Your task to perform on an android device: open app "YouTube Kids" Image 0: 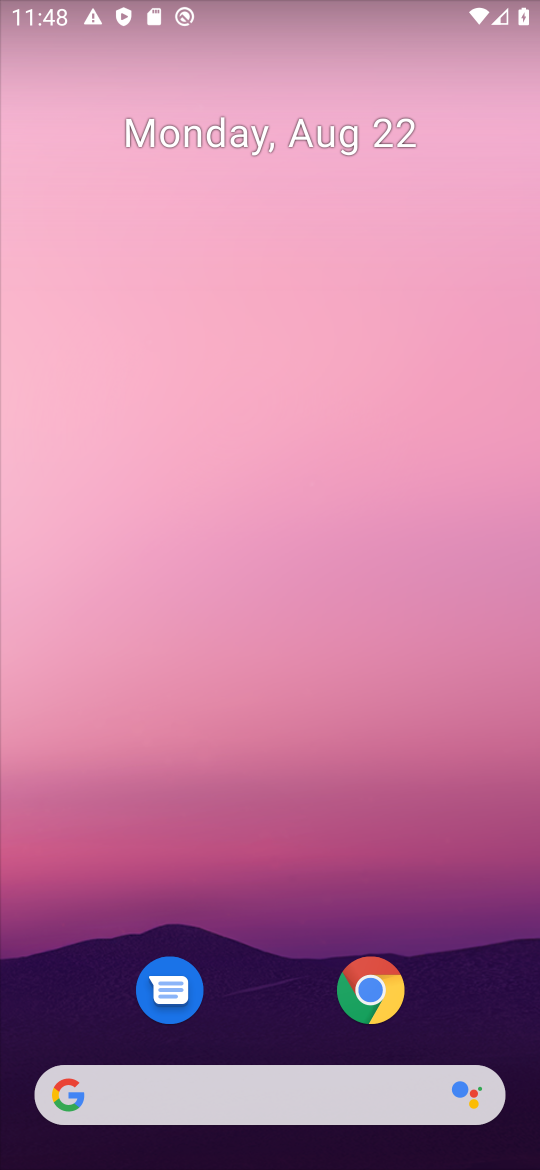
Step 0: drag from (241, 786) to (275, 447)
Your task to perform on an android device: open app "YouTube Kids" Image 1: 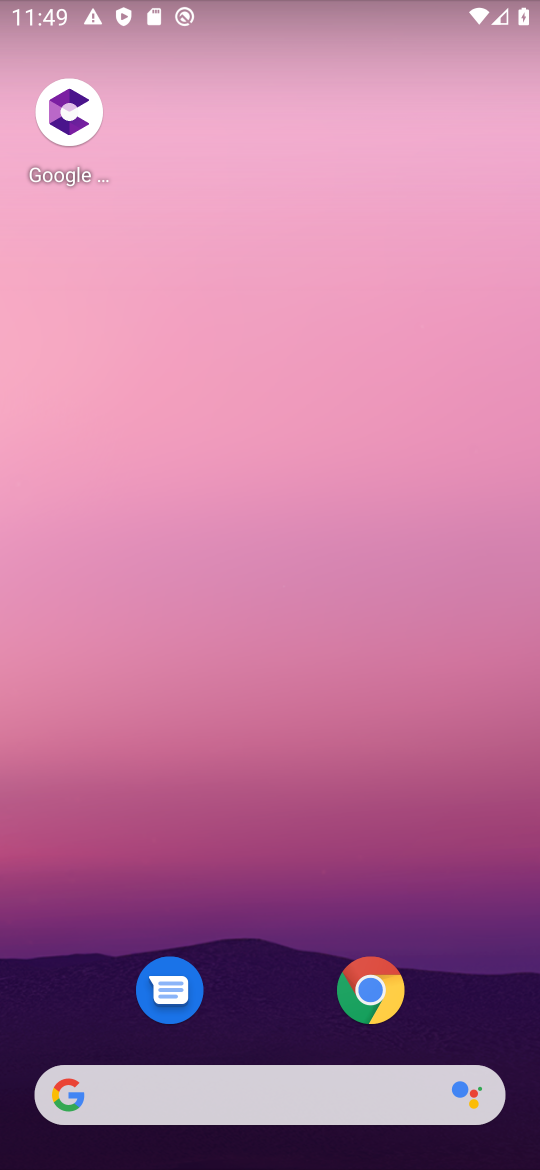
Step 1: drag from (220, 988) to (203, 521)
Your task to perform on an android device: open app "YouTube Kids" Image 2: 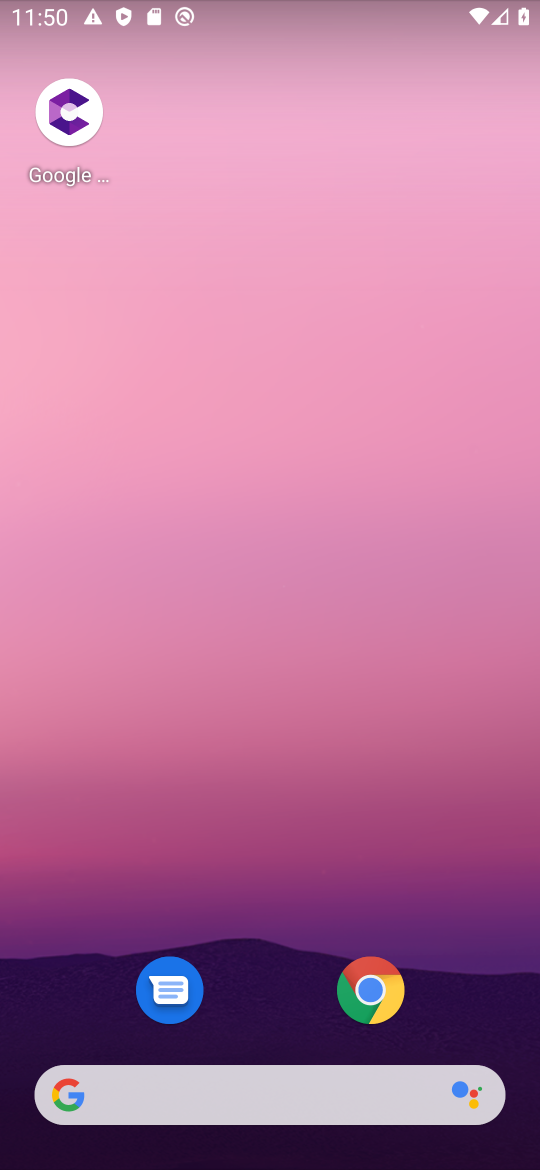
Step 2: drag from (291, 981) to (299, 26)
Your task to perform on an android device: open app "YouTube Kids" Image 3: 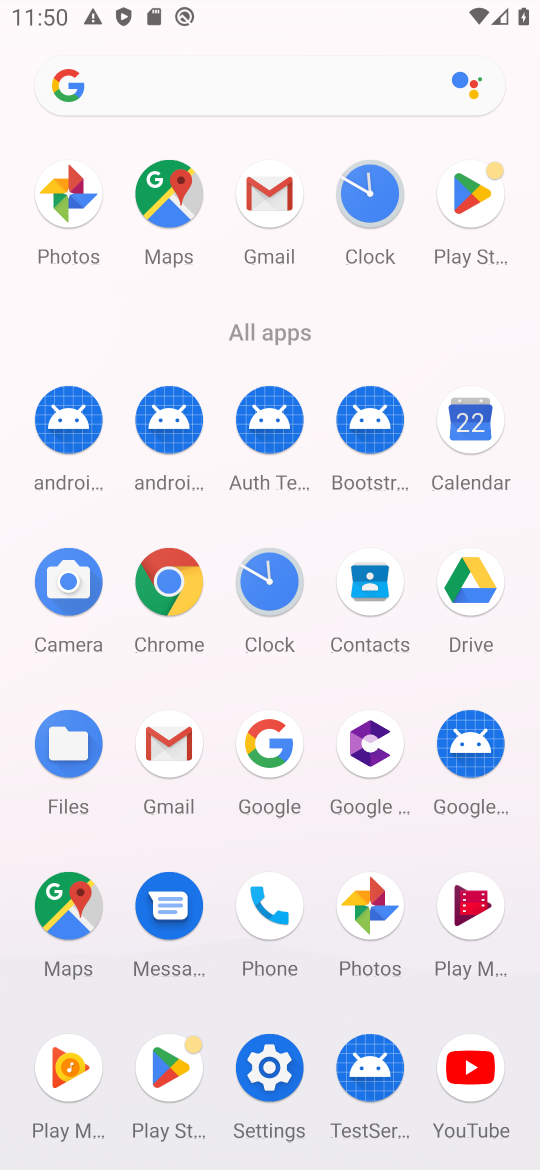
Step 3: click (456, 246)
Your task to perform on an android device: open app "YouTube Kids" Image 4: 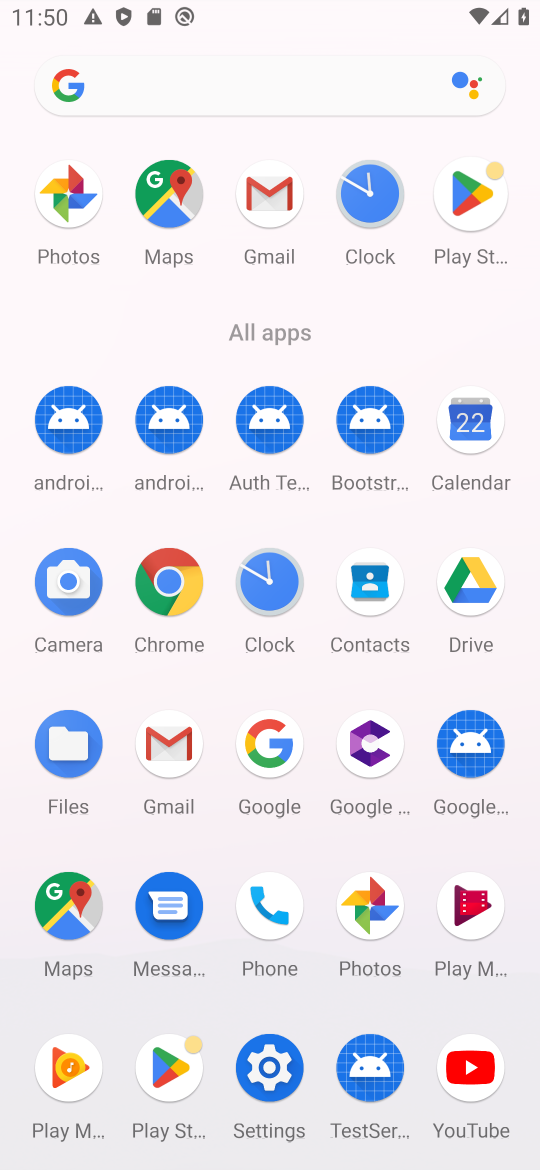
Step 4: click (459, 180)
Your task to perform on an android device: open app "YouTube Kids" Image 5: 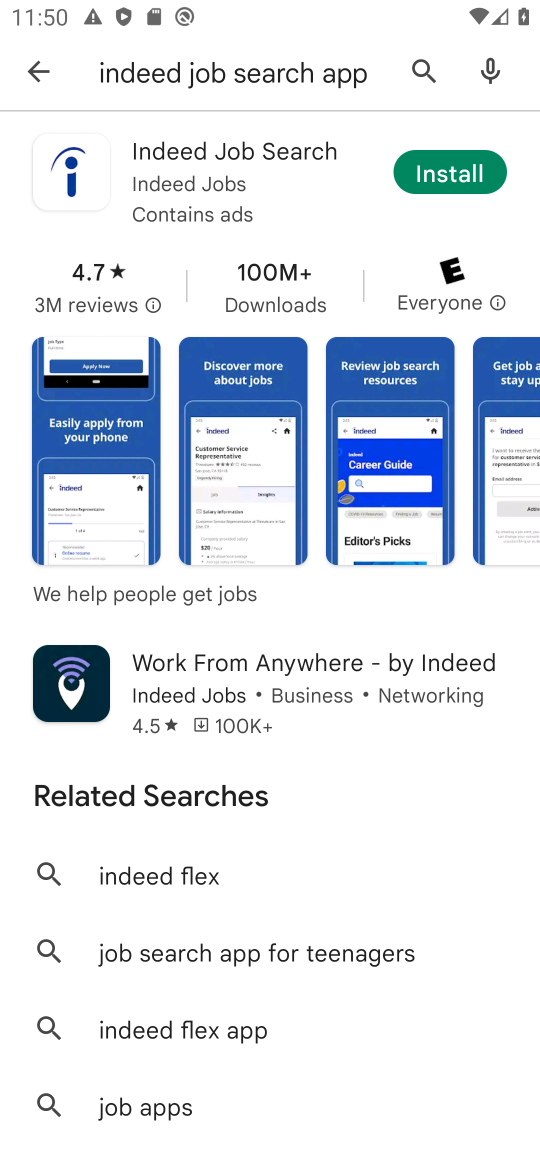
Step 5: click (31, 67)
Your task to perform on an android device: open app "YouTube Kids" Image 6: 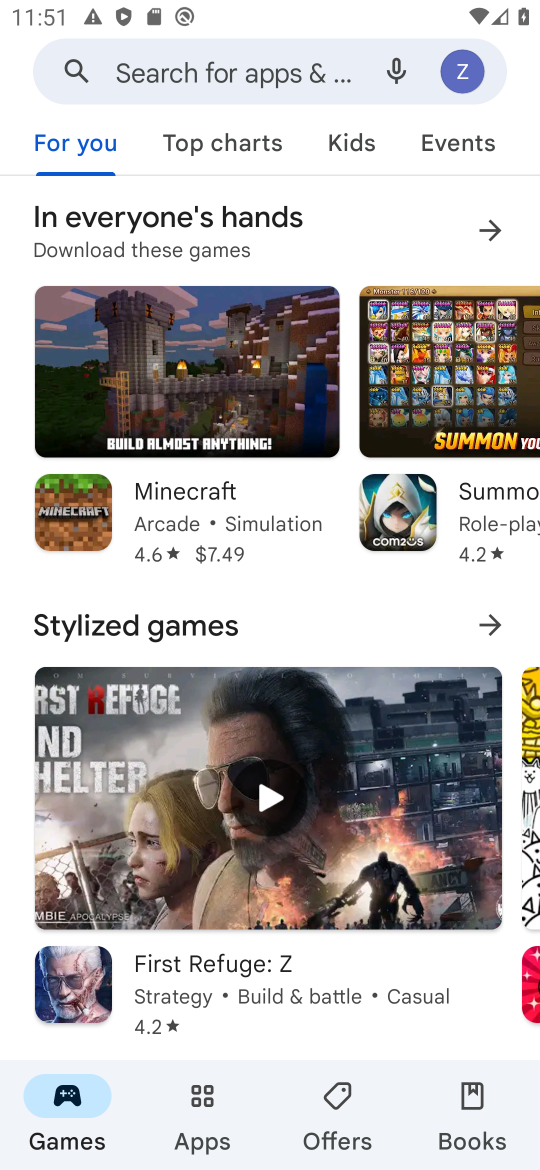
Step 6: click (269, 49)
Your task to perform on an android device: open app "YouTube Kids" Image 7: 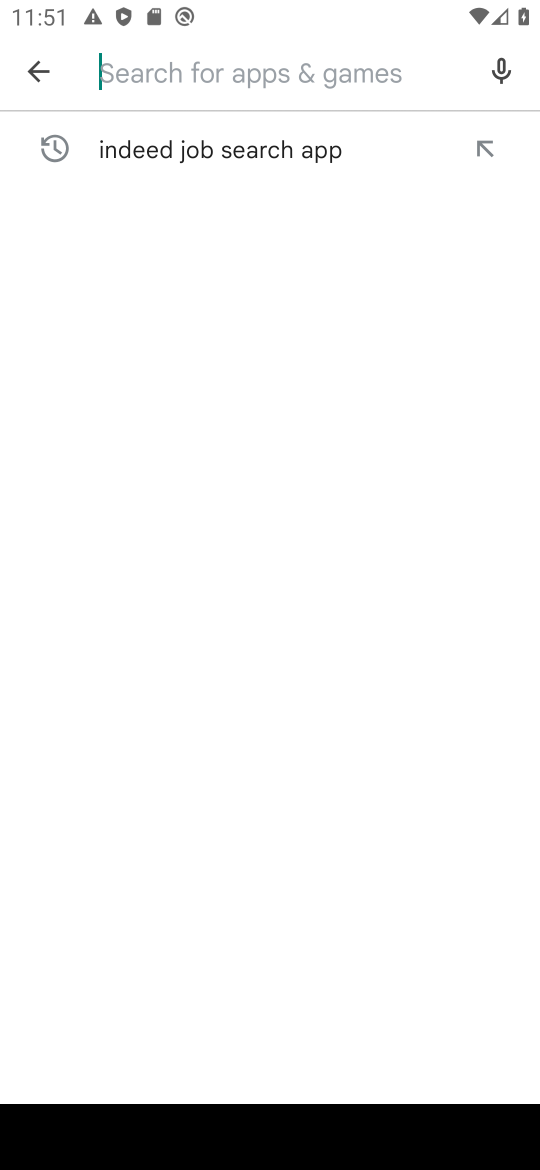
Step 7: type "YouTube Kids "
Your task to perform on an android device: open app "YouTube Kids" Image 8: 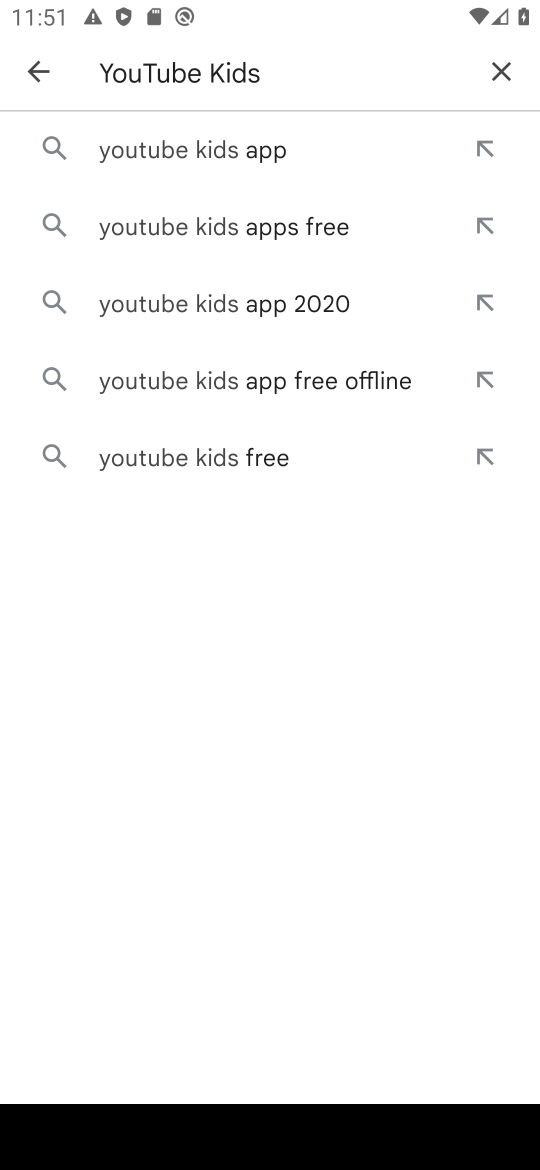
Step 8: click (196, 149)
Your task to perform on an android device: open app "YouTube Kids" Image 9: 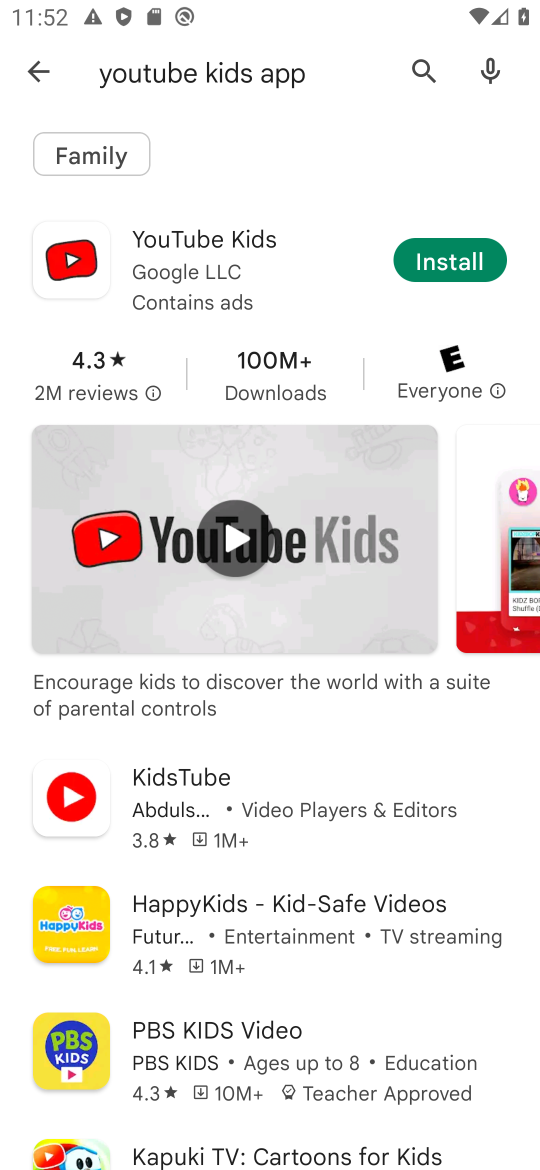
Step 9: click (447, 246)
Your task to perform on an android device: open app "YouTube Kids" Image 10: 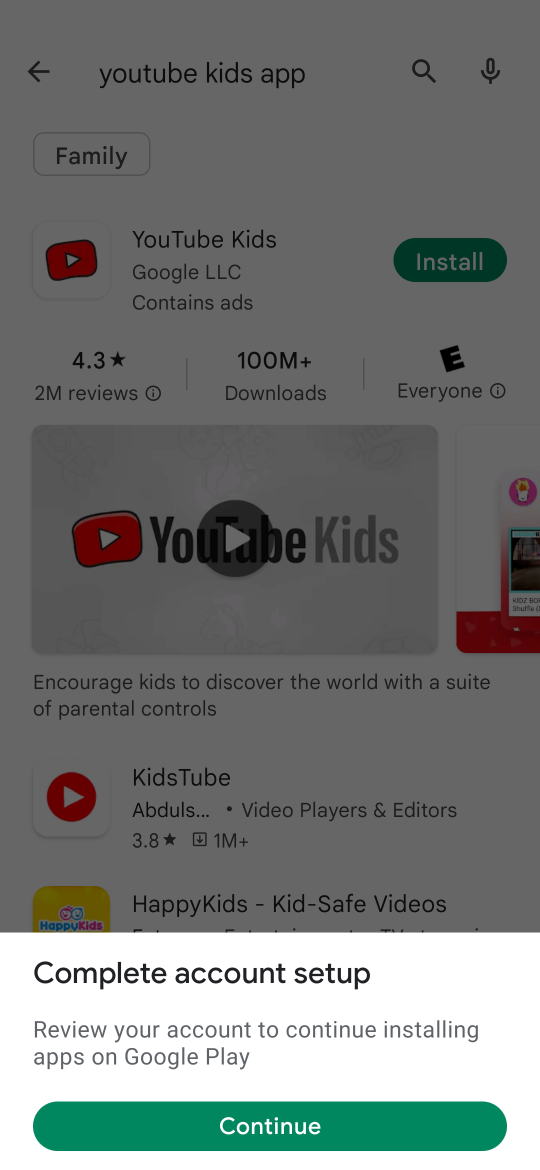
Step 10: task complete